Your task to perform on an android device: read, delete, or share a saved page in the chrome app Image 0: 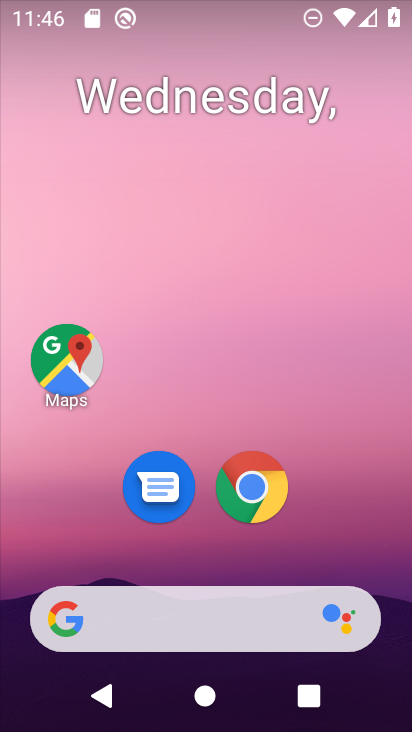
Step 0: click (250, 491)
Your task to perform on an android device: read, delete, or share a saved page in the chrome app Image 1: 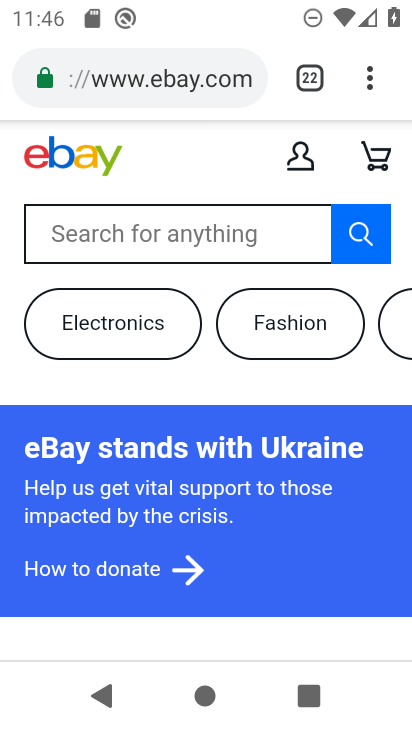
Step 1: click (371, 77)
Your task to perform on an android device: read, delete, or share a saved page in the chrome app Image 2: 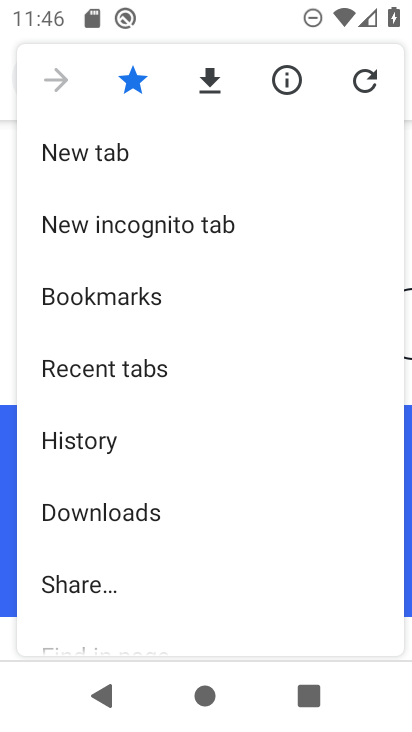
Step 2: drag from (314, 466) to (285, 122)
Your task to perform on an android device: read, delete, or share a saved page in the chrome app Image 3: 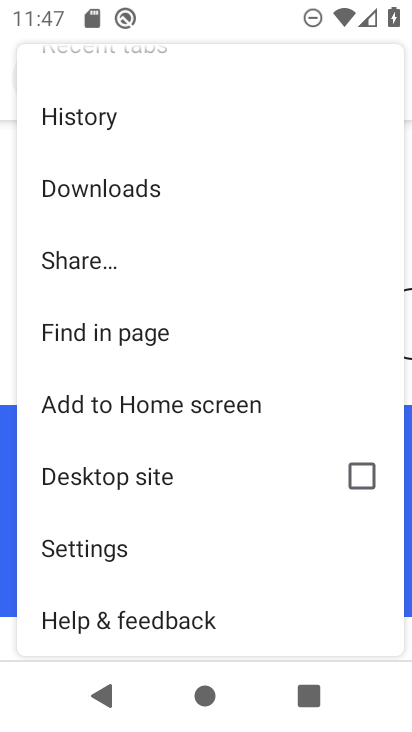
Step 3: click (100, 189)
Your task to perform on an android device: read, delete, or share a saved page in the chrome app Image 4: 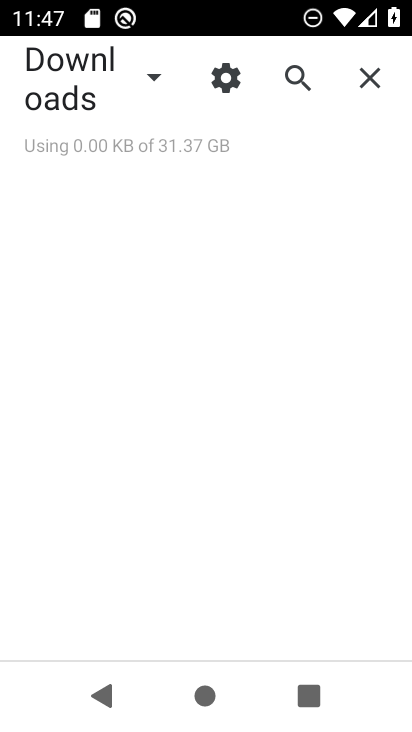
Step 4: click (150, 75)
Your task to perform on an android device: read, delete, or share a saved page in the chrome app Image 5: 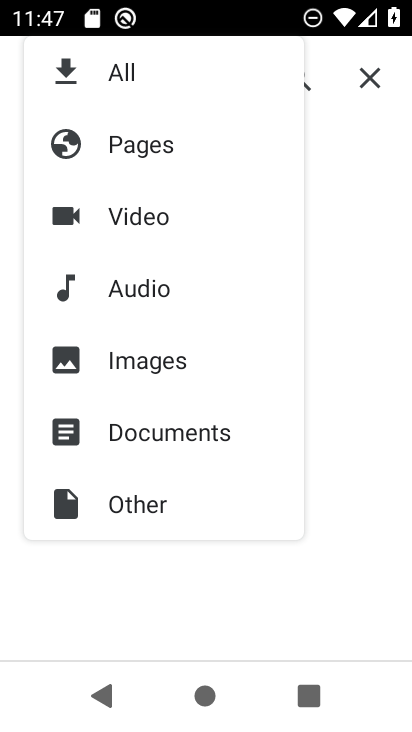
Step 5: click (362, 288)
Your task to perform on an android device: read, delete, or share a saved page in the chrome app Image 6: 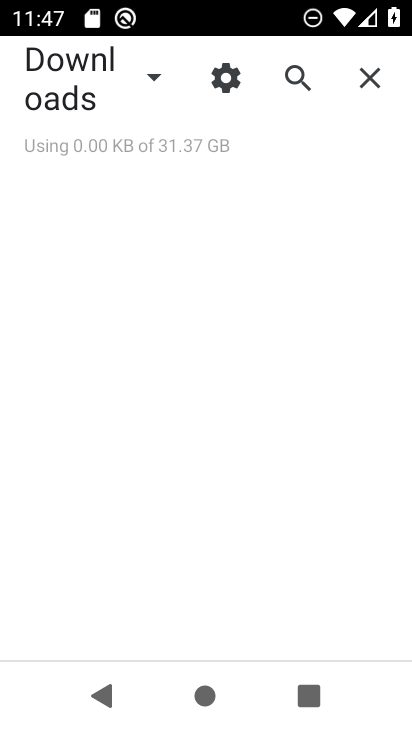
Step 6: task complete